Your task to perform on an android device: change notifications settings Image 0: 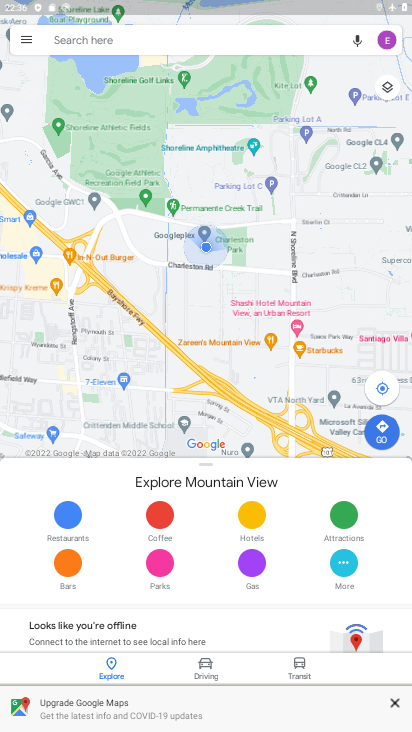
Step 0: press home button
Your task to perform on an android device: change notifications settings Image 1: 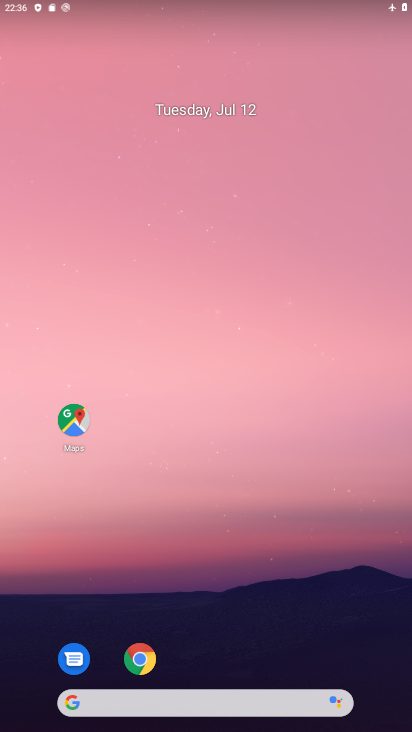
Step 1: drag from (254, 677) to (241, 265)
Your task to perform on an android device: change notifications settings Image 2: 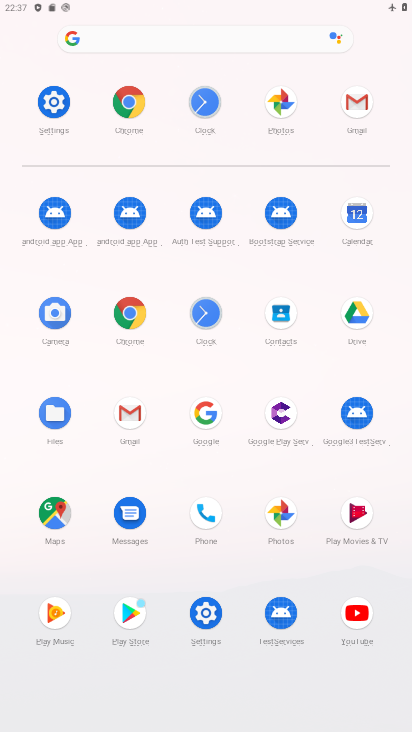
Step 2: click (58, 97)
Your task to perform on an android device: change notifications settings Image 3: 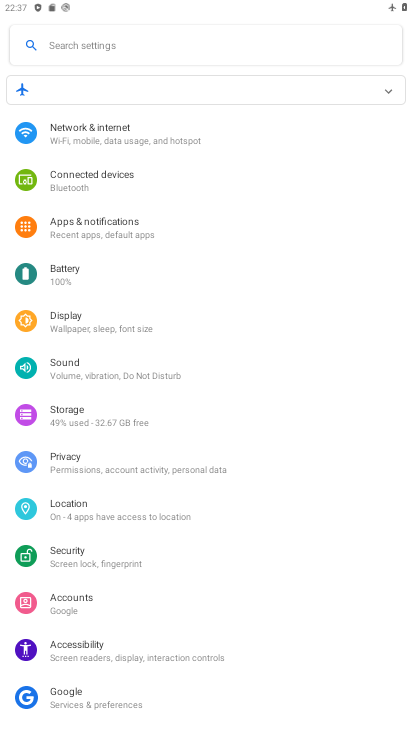
Step 3: click (109, 226)
Your task to perform on an android device: change notifications settings Image 4: 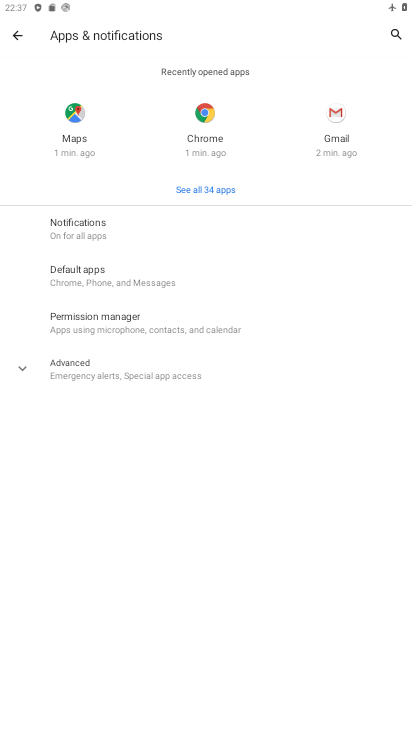
Step 4: click (136, 242)
Your task to perform on an android device: change notifications settings Image 5: 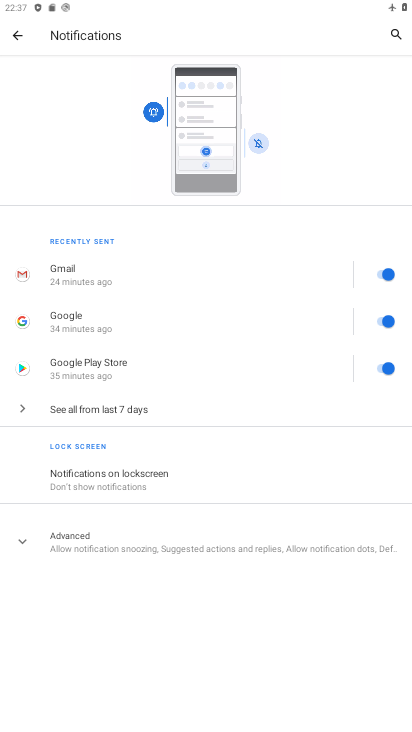
Step 5: click (151, 402)
Your task to perform on an android device: change notifications settings Image 6: 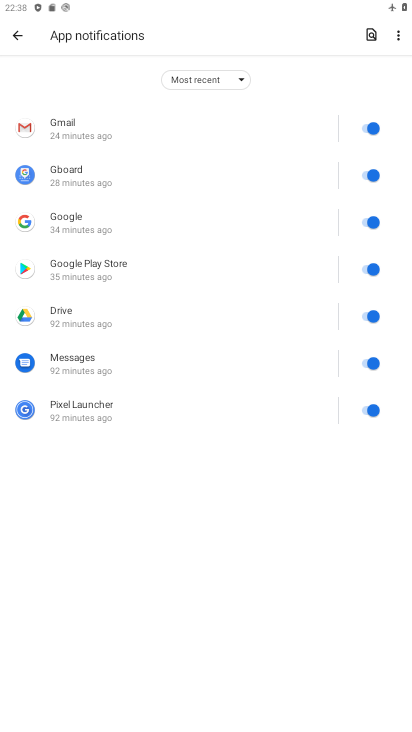
Step 6: click (363, 124)
Your task to perform on an android device: change notifications settings Image 7: 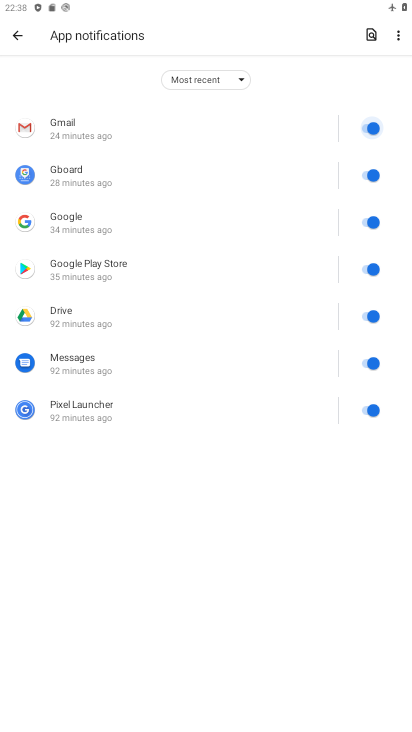
Step 7: click (365, 159)
Your task to perform on an android device: change notifications settings Image 8: 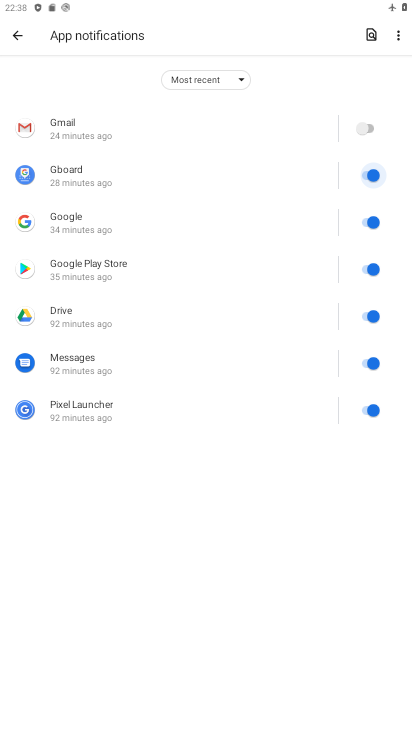
Step 8: drag from (367, 226) to (369, 270)
Your task to perform on an android device: change notifications settings Image 9: 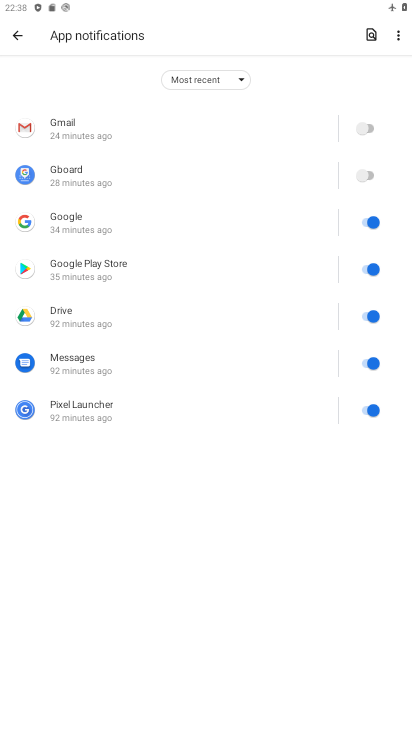
Step 9: click (371, 328)
Your task to perform on an android device: change notifications settings Image 10: 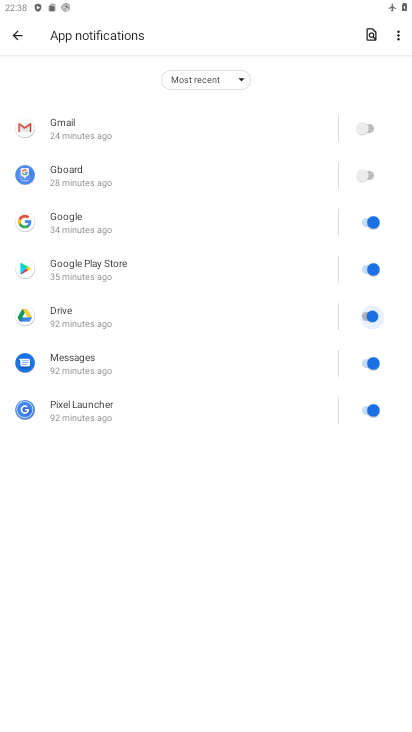
Step 10: click (371, 349)
Your task to perform on an android device: change notifications settings Image 11: 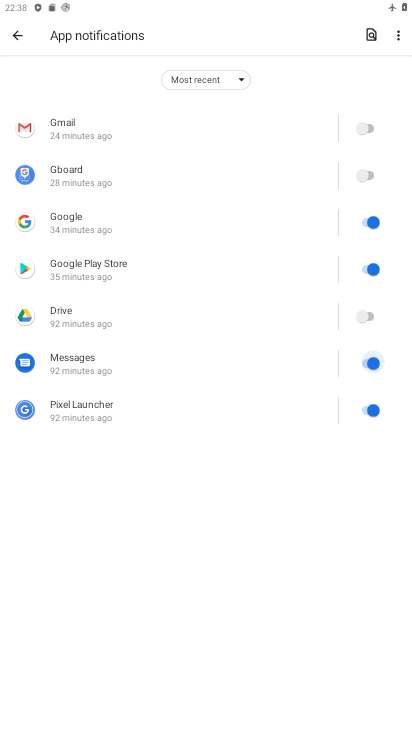
Step 11: click (358, 436)
Your task to perform on an android device: change notifications settings Image 12: 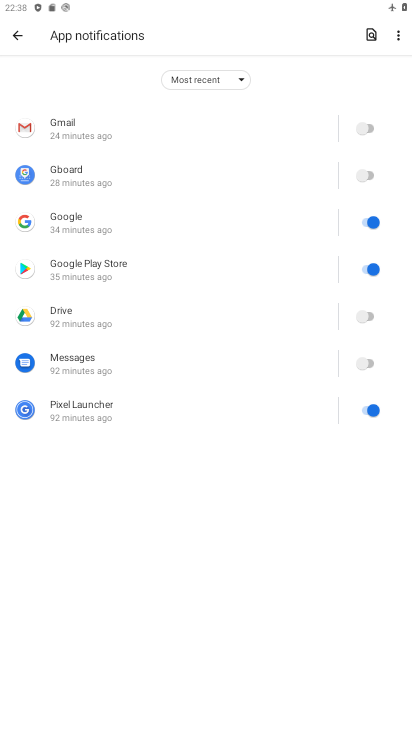
Step 12: click (367, 412)
Your task to perform on an android device: change notifications settings Image 13: 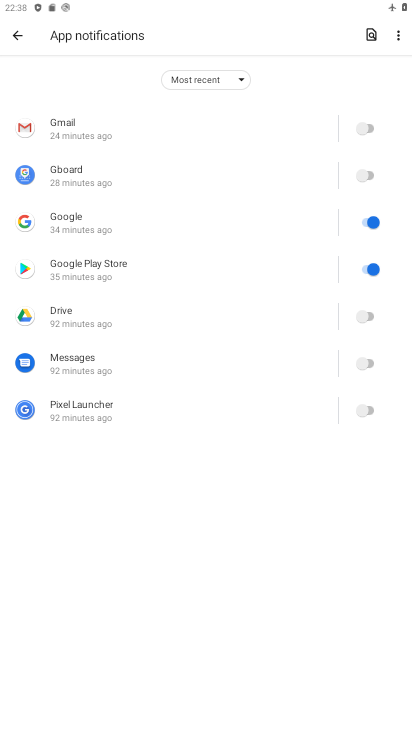
Step 13: click (379, 267)
Your task to perform on an android device: change notifications settings Image 14: 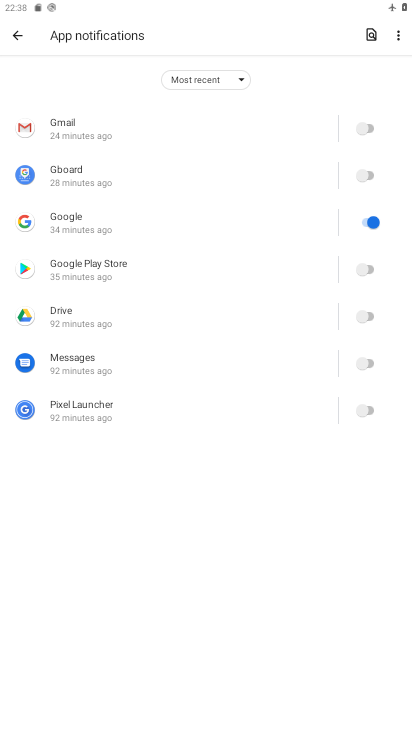
Step 14: click (377, 225)
Your task to perform on an android device: change notifications settings Image 15: 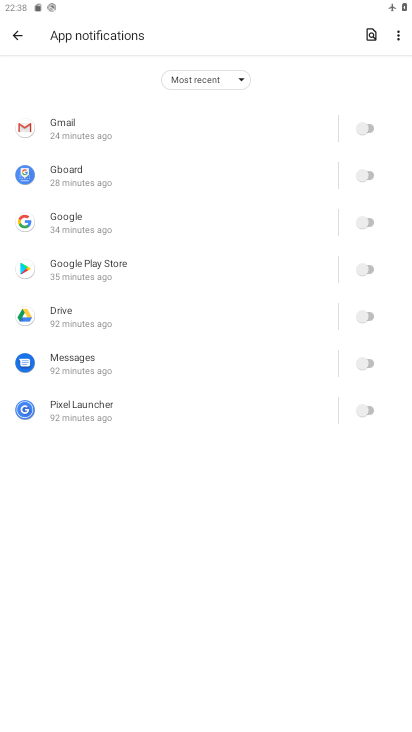
Step 15: task complete